Your task to perform on an android device: move a message to another label in the gmail app Image 0: 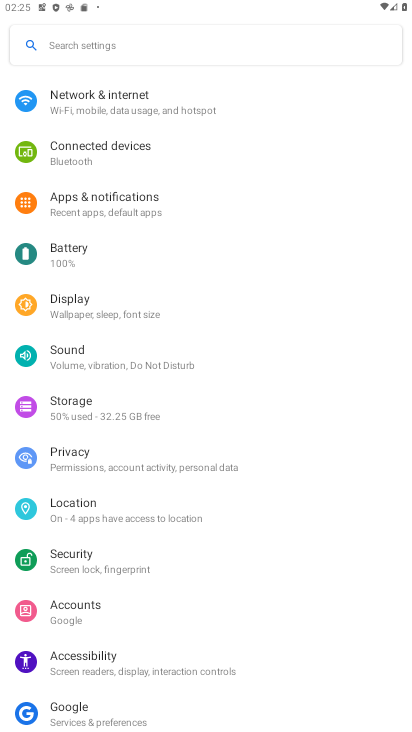
Step 0: press home button
Your task to perform on an android device: move a message to another label in the gmail app Image 1: 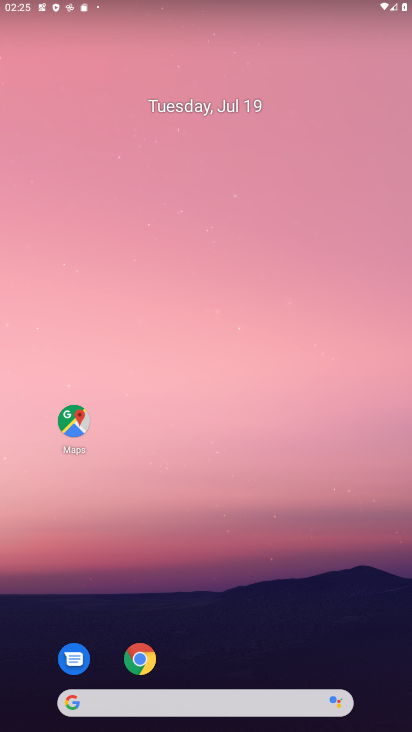
Step 1: drag from (269, 667) to (210, 144)
Your task to perform on an android device: move a message to another label in the gmail app Image 2: 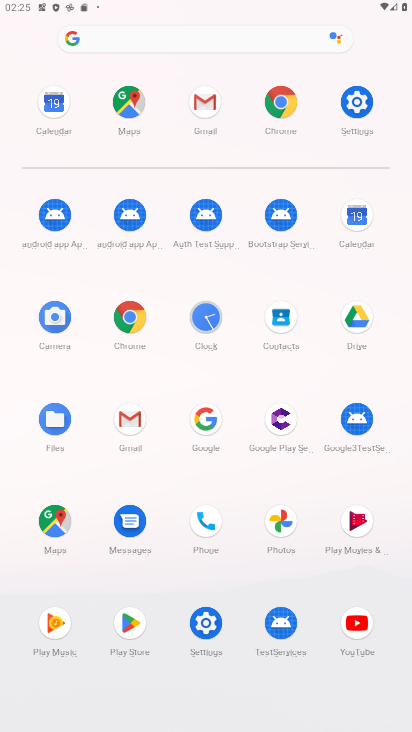
Step 2: click (131, 407)
Your task to perform on an android device: move a message to another label in the gmail app Image 3: 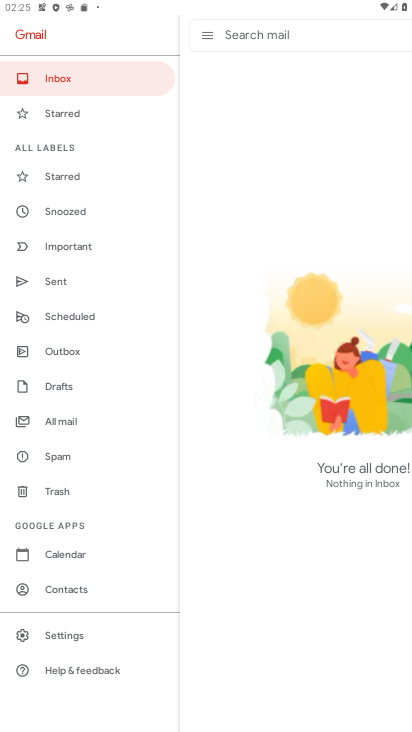
Step 3: task complete